Your task to perform on an android device: Go to eBay Image 0: 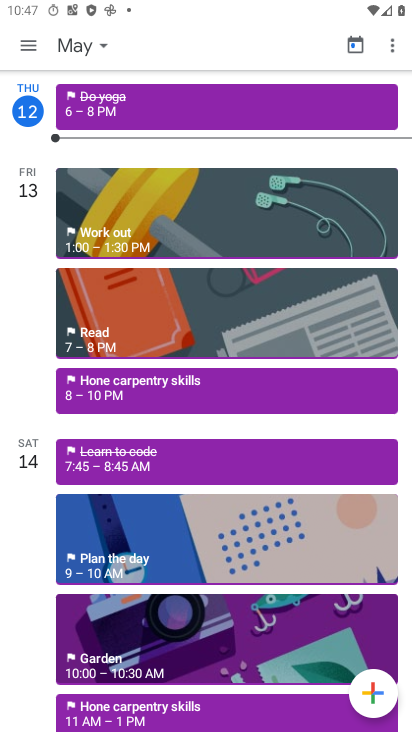
Step 0: press home button
Your task to perform on an android device: Go to eBay Image 1: 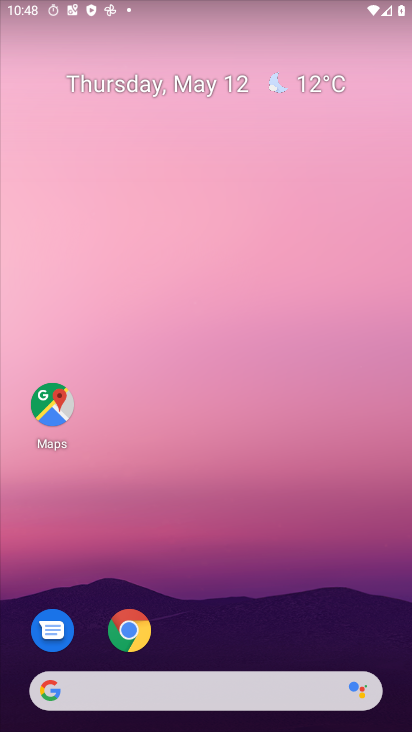
Step 1: click (140, 639)
Your task to perform on an android device: Go to eBay Image 2: 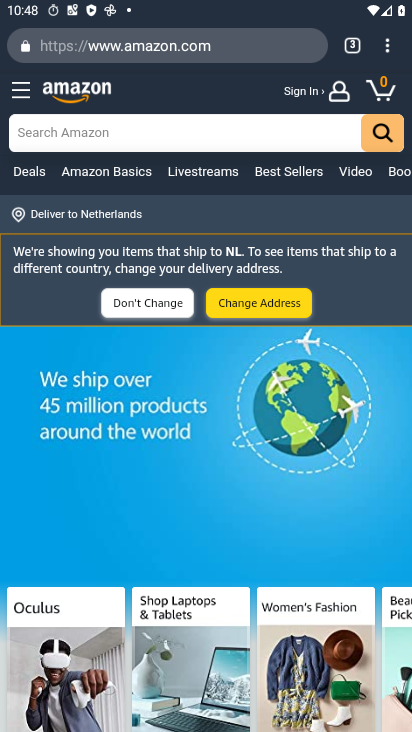
Step 2: click (184, 47)
Your task to perform on an android device: Go to eBay Image 3: 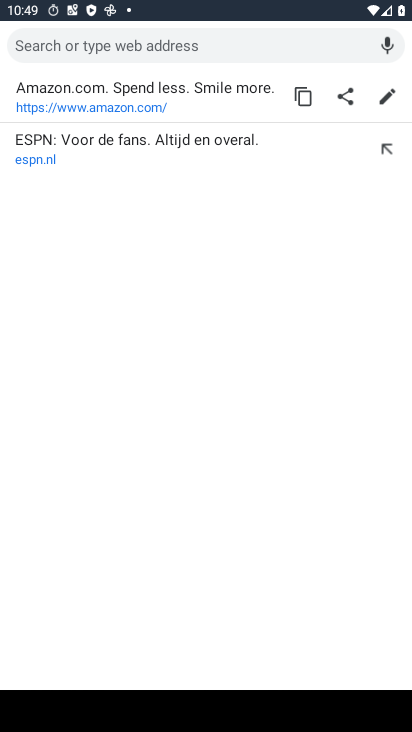
Step 3: type "ebay"
Your task to perform on an android device: Go to eBay Image 4: 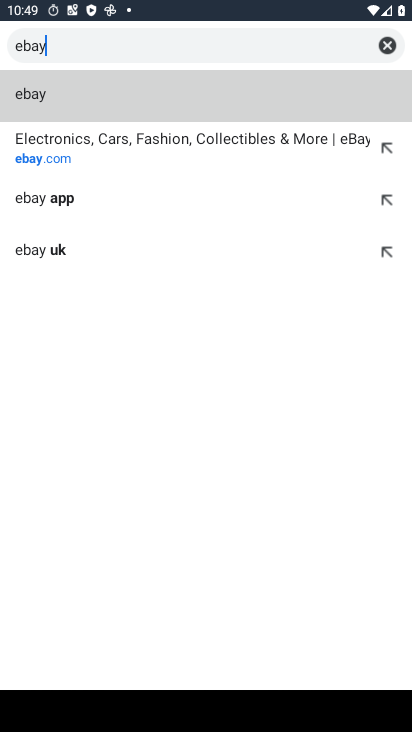
Step 4: click (78, 151)
Your task to perform on an android device: Go to eBay Image 5: 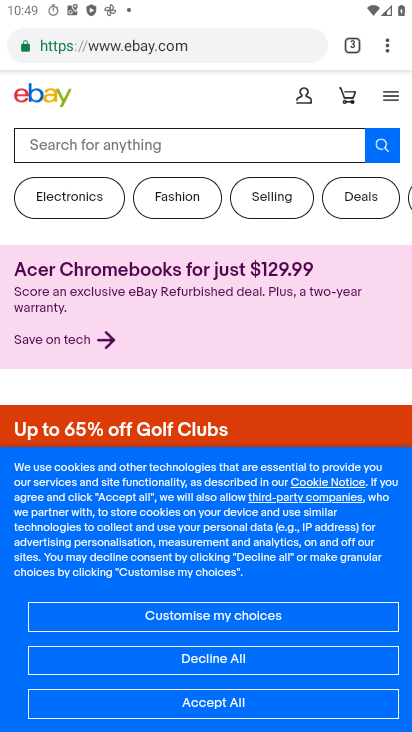
Step 5: task complete